Your task to perform on an android device: show emergency info Image 0: 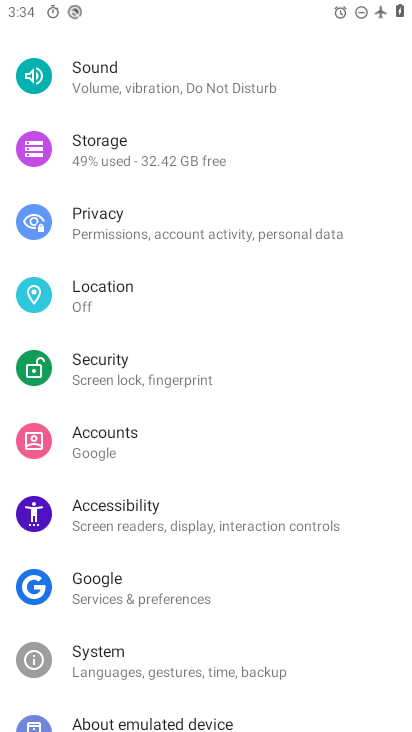
Step 0: drag from (156, 726) to (160, 323)
Your task to perform on an android device: show emergency info Image 1: 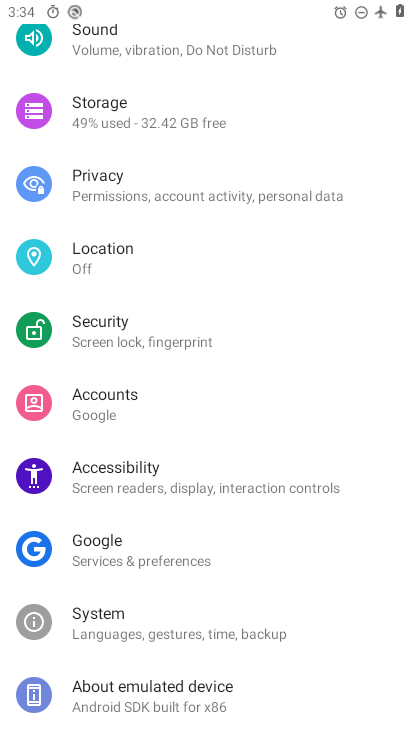
Step 1: click (145, 684)
Your task to perform on an android device: show emergency info Image 2: 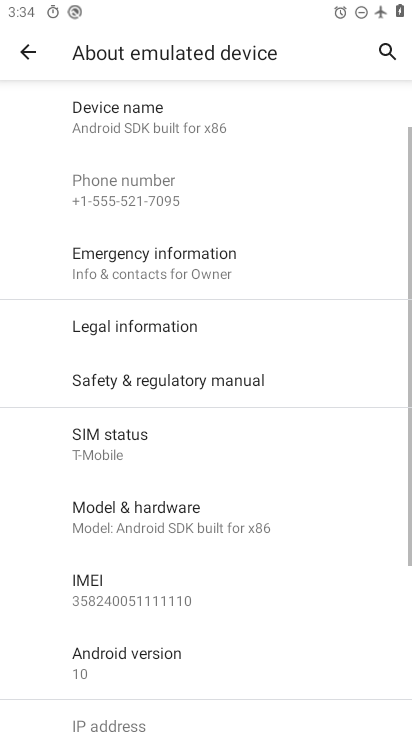
Step 2: click (199, 258)
Your task to perform on an android device: show emergency info Image 3: 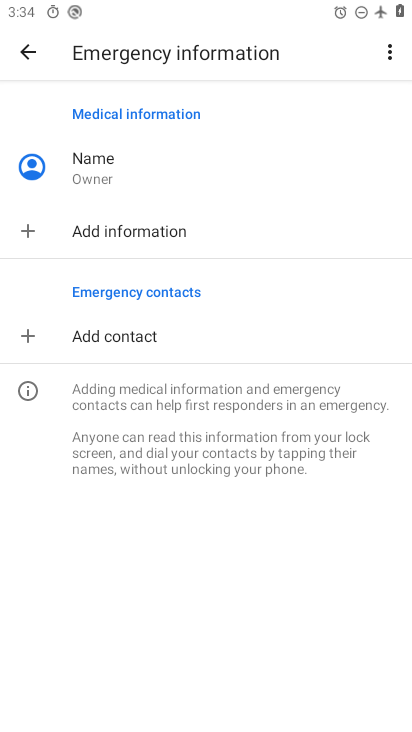
Step 3: task complete